Your task to perform on an android device: What's the weather going to be tomorrow? Image 0: 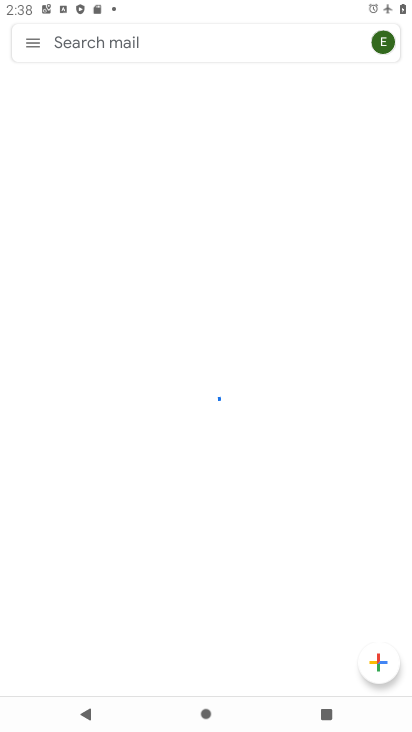
Step 0: press home button
Your task to perform on an android device: What's the weather going to be tomorrow? Image 1: 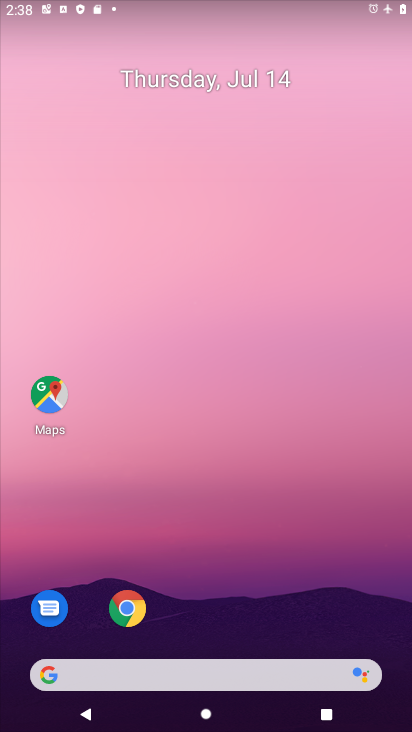
Step 1: task complete